Your task to perform on an android device: refresh tabs in the chrome app Image 0: 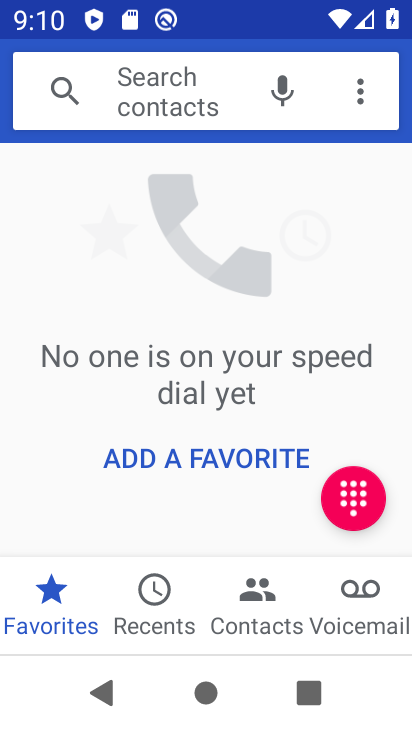
Step 0: press home button
Your task to perform on an android device: refresh tabs in the chrome app Image 1: 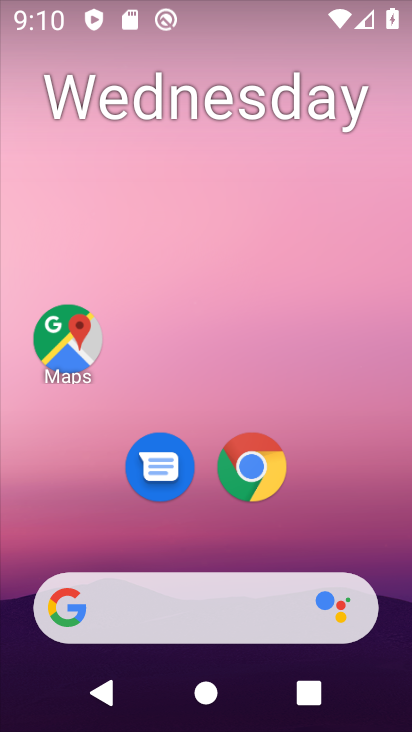
Step 1: click (250, 476)
Your task to perform on an android device: refresh tabs in the chrome app Image 2: 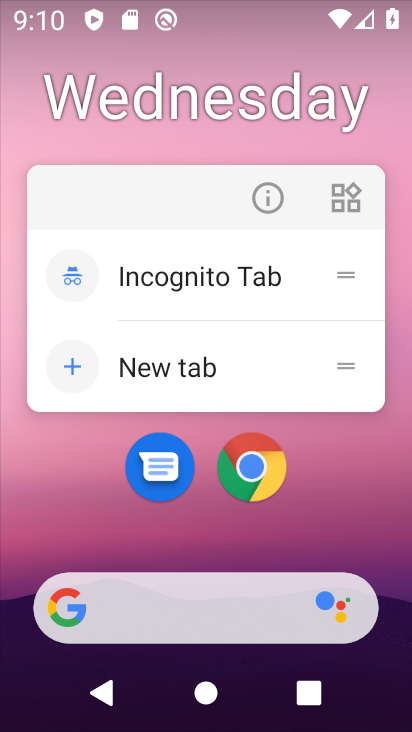
Step 2: click (242, 471)
Your task to perform on an android device: refresh tabs in the chrome app Image 3: 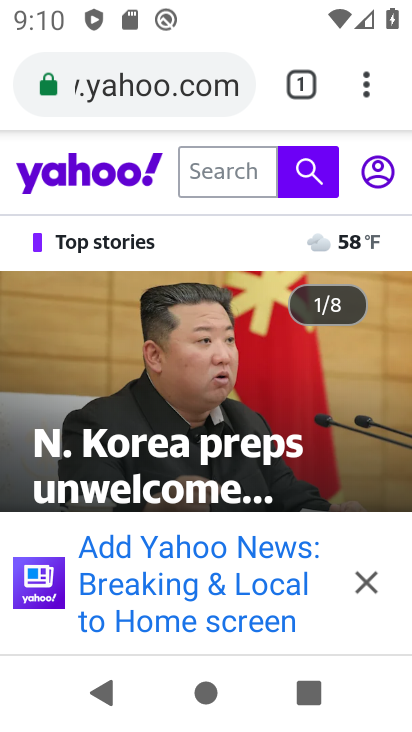
Step 3: click (360, 82)
Your task to perform on an android device: refresh tabs in the chrome app Image 4: 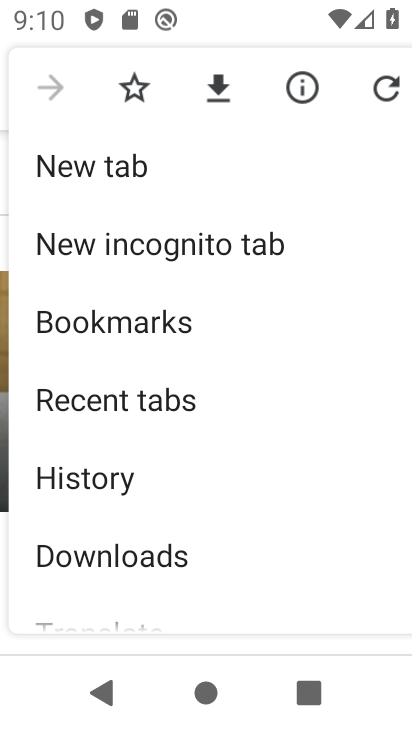
Step 4: drag from (213, 530) to (216, 176)
Your task to perform on an android device: refresh tabs in the chrome app Image 5: 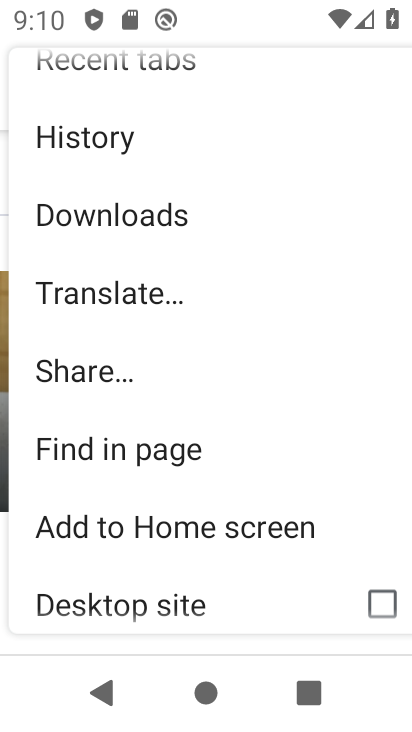
Step 5: drag from (218, 170) to (235, 516)
Your task to perform on an android device: refresh tabs in the chrome app Image 6: 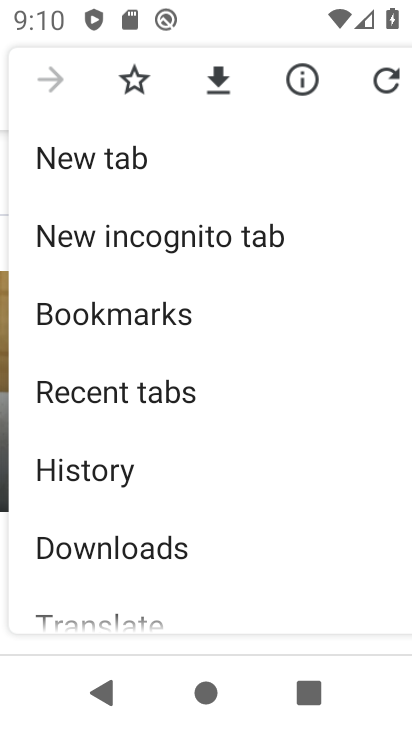
Step 6: click (373, 86)
Your task to perform on an android device: refresh tabs in the chrome app Image 7: 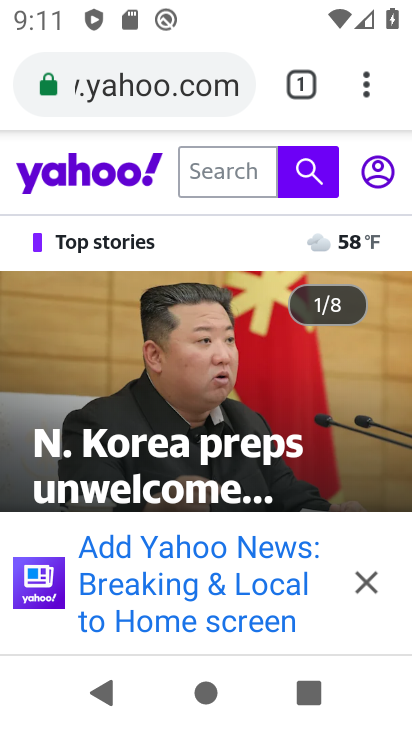
Step 7: task complete